Your task to perform on an android device: Turn on the flashlight Image 0: 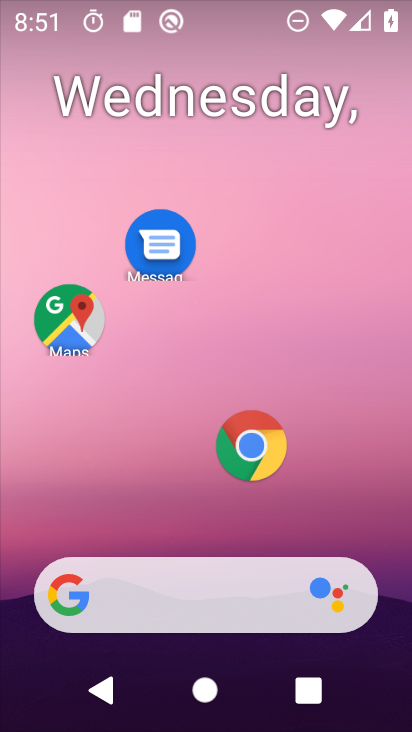
Step 0: drag from (214, 513) to (195, 176)
Your task to perform on an android device: Turn on the flashlight Image 1: 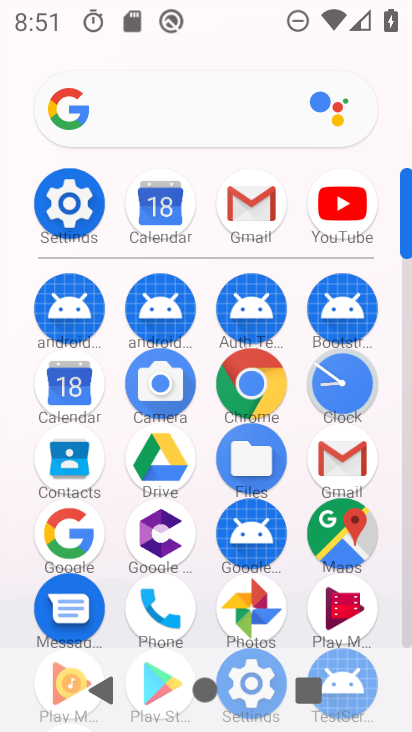
Step 1: click (68, 201)
Your task to perform on an android device: Turn on the flashlight Image 2: 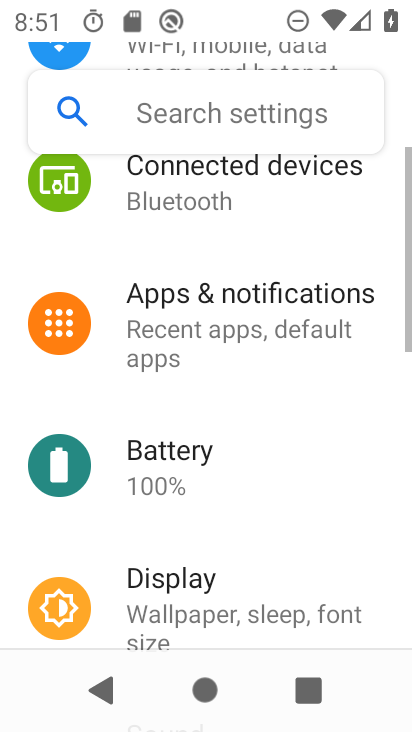
Step 2: click (187, 122)
Your task to perform on an android device: Turn on the flashlight Image 3: 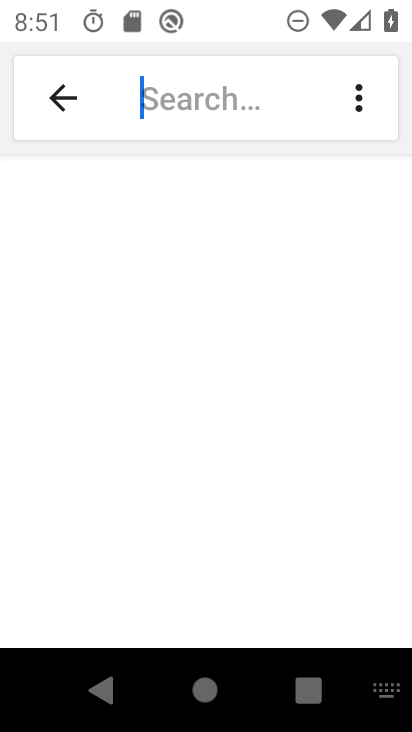
Step 3: type "flashlight"
Your task to perform on an android device: Turn on the flashlight Image 4: 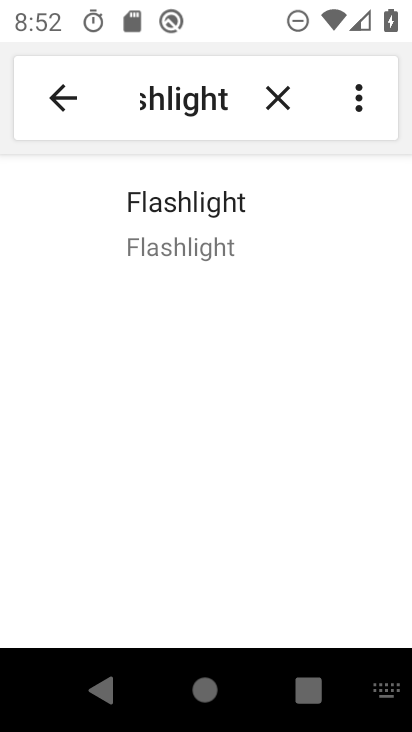
Step 4: click (169, 211)
Your task to perform on an android device: Turn on the flashlight Image 5: 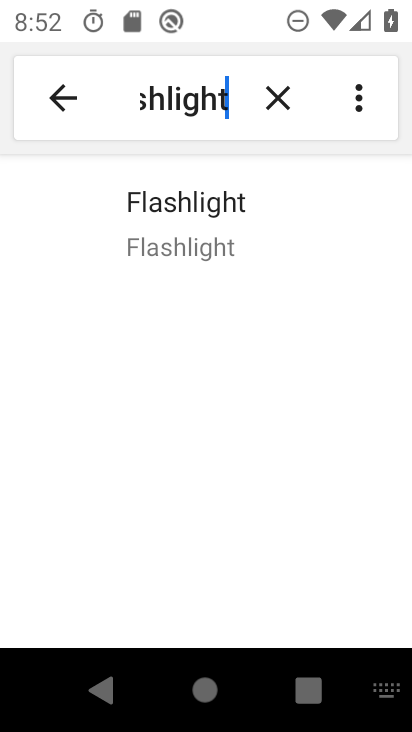
Step 5: task complete